Your task to perform on an android device: install app "Google Photos" Image 0: 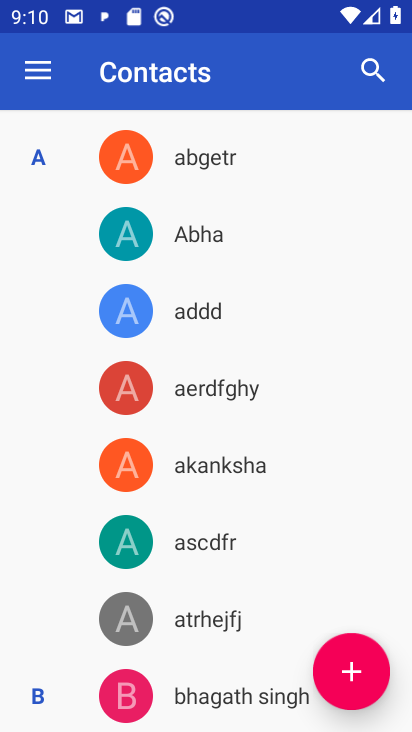
Step 0: press home button
Your task to perform on an android device: install app "Google Photos" Image 1: 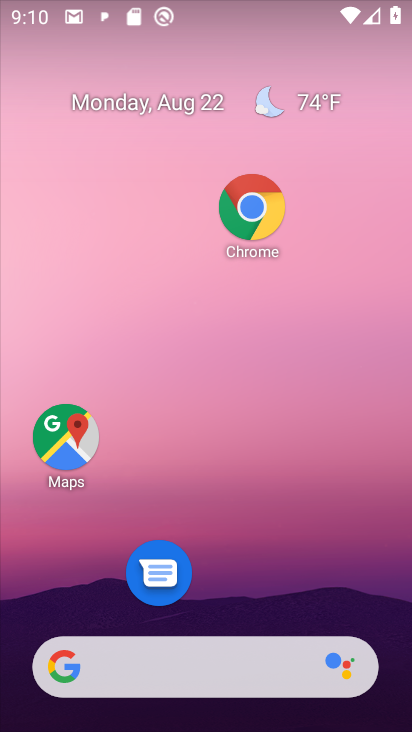
Step 1: drag from (226, 618) to (275, 239)
Your task to perform on an android device: install app "Google Photos" Image 2: 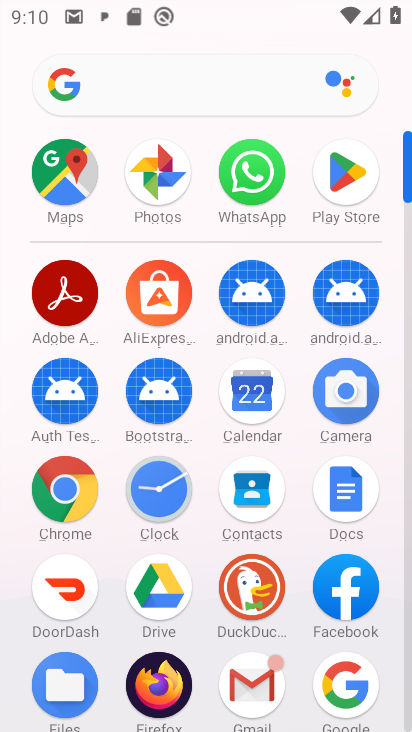
Step 2: click (339, 188)
Your task to perform on an android device: install app "Google Photos" Image 3: 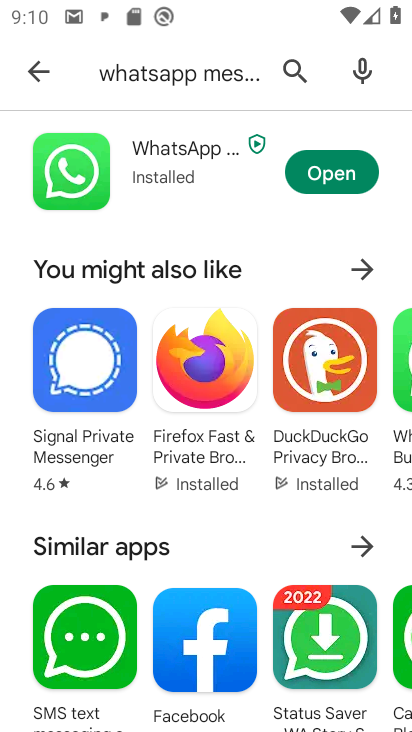
Step 3: click (185, 89)
Your task to perform on an android device: install app "Google Photos" Image 4: 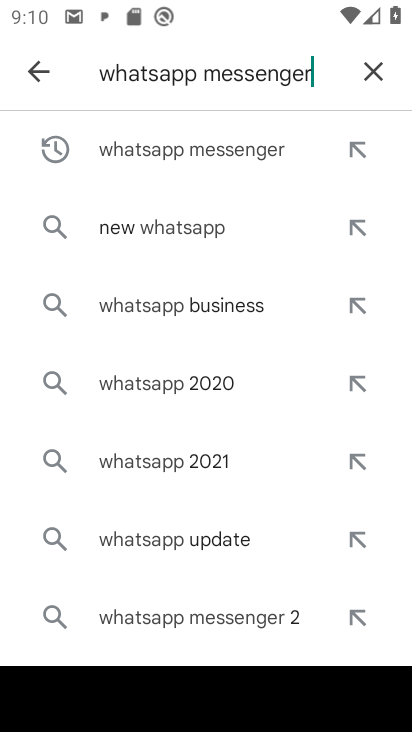
Step 4: click (373, 71)
Your task to perform on an android device: install app "Google Photos" Image 5: 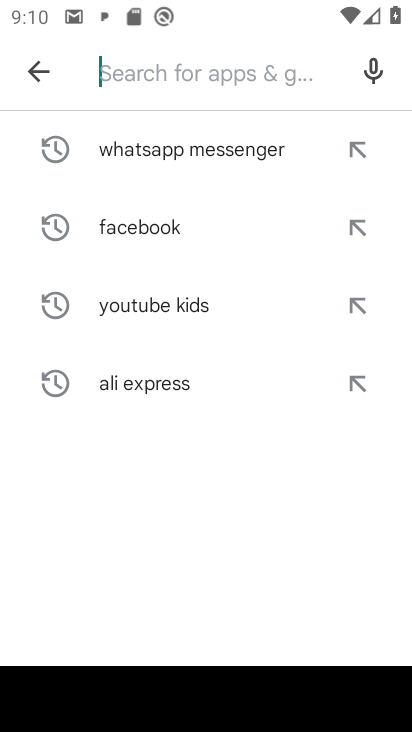
Step 5: type "Google photos"
Your task to perform on an android device: install app "Google Photos" Image 6: 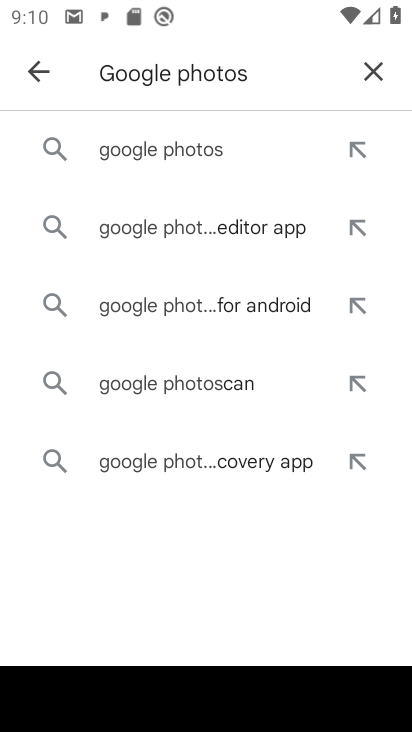
Step 6: click (178, 167)
Your task to perform on an android device: install app "Google Photos" Image 7: 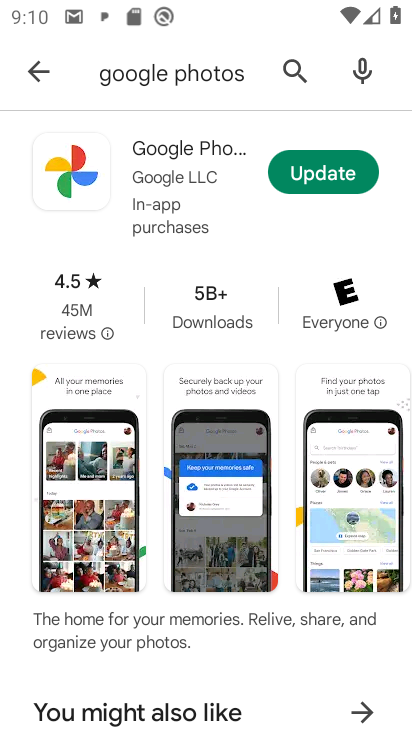
Step 7: click (334, 185)
Your task to perform on an android device: install app "Google Photos" Image 8: 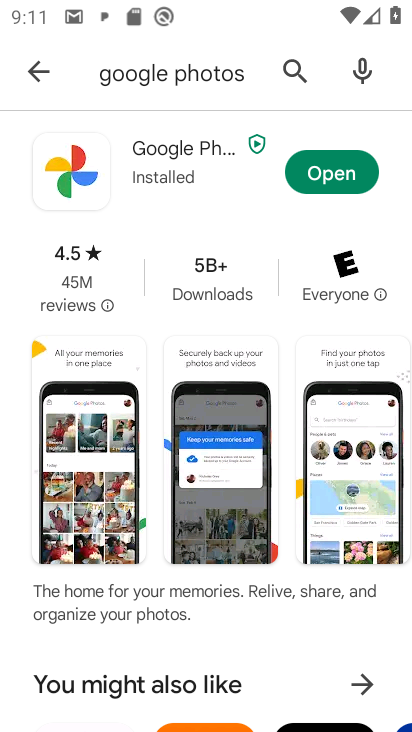
Step 8: task complete